Your task to perform on an android device: toggle sleep mode Image 0: 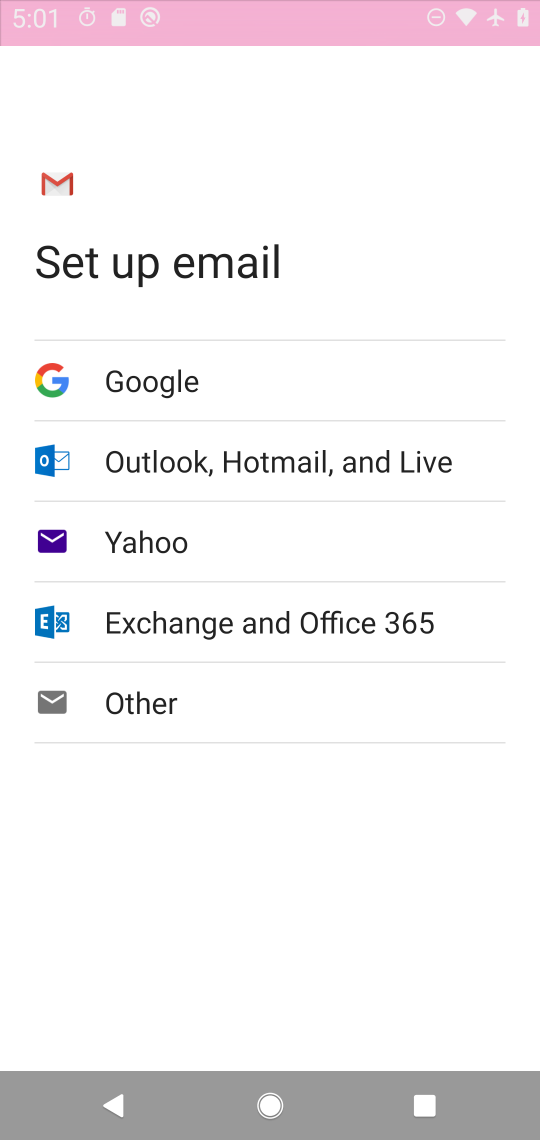
Step 0: press home button
Your task to perform on an android device: toggle sleep mode Image 1: 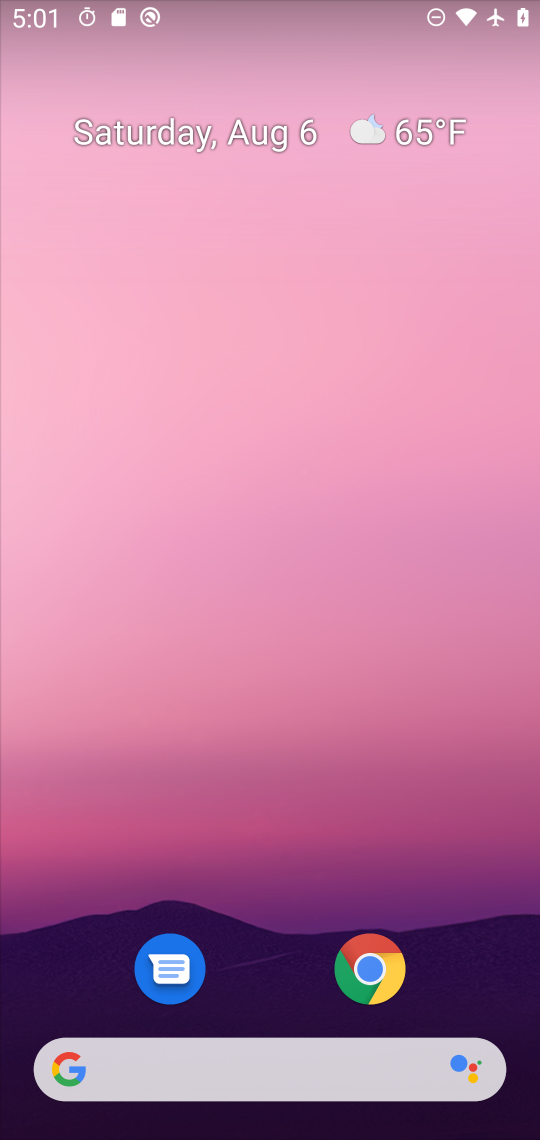
Step 1: drag from (257, 673) to (395, 23)
Your task to perform on an android device: toggle sleep mode Image 2: 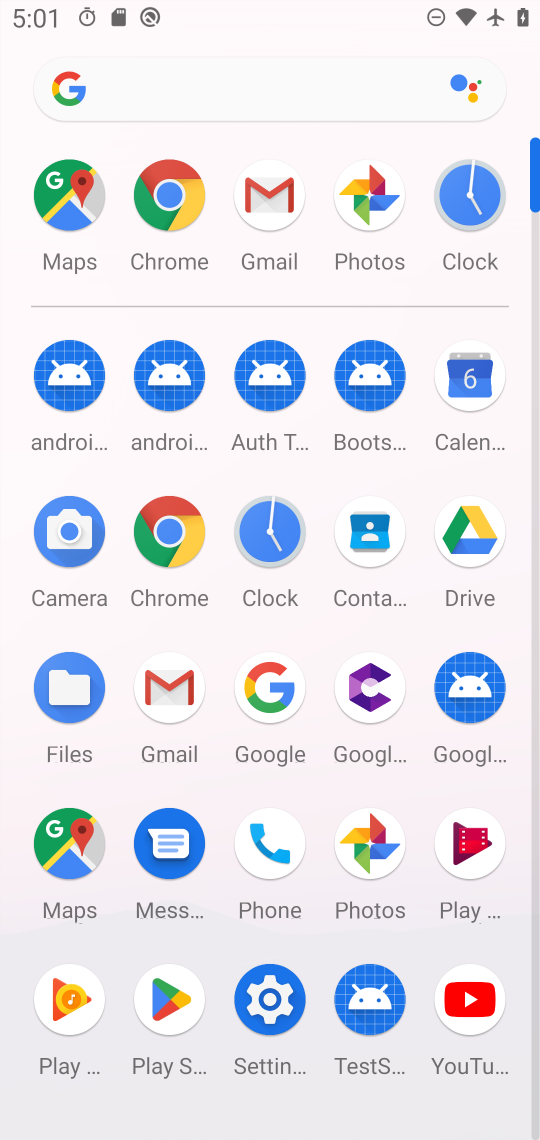
Step 2: click (270, 995)
Your task to perform on an android device: toggle sleep mode Image 3: 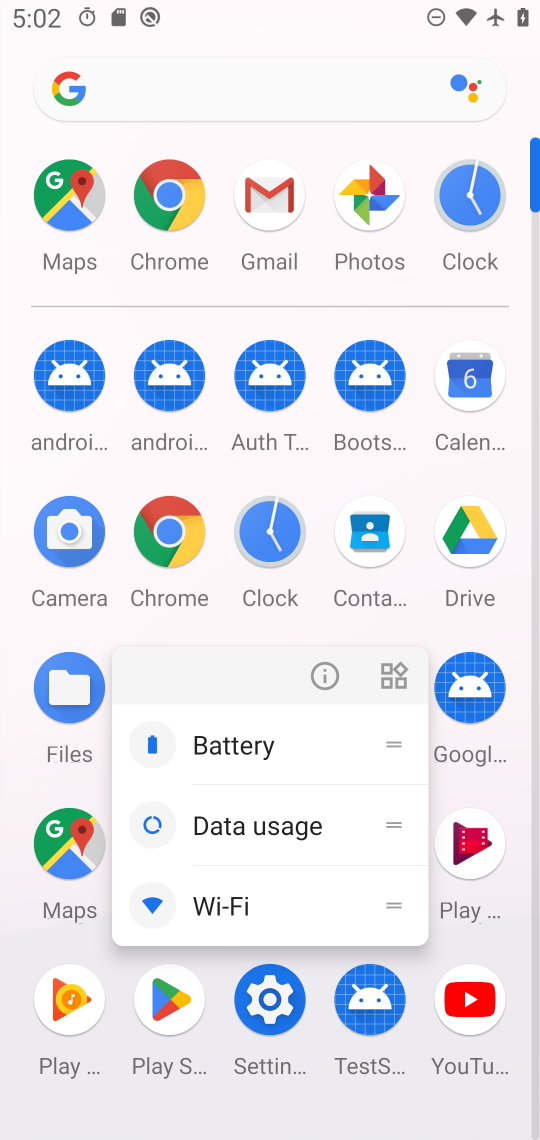
Step 3: click (263, 998)
Your task to perform on an android device: toggle sleep mode Image 4: 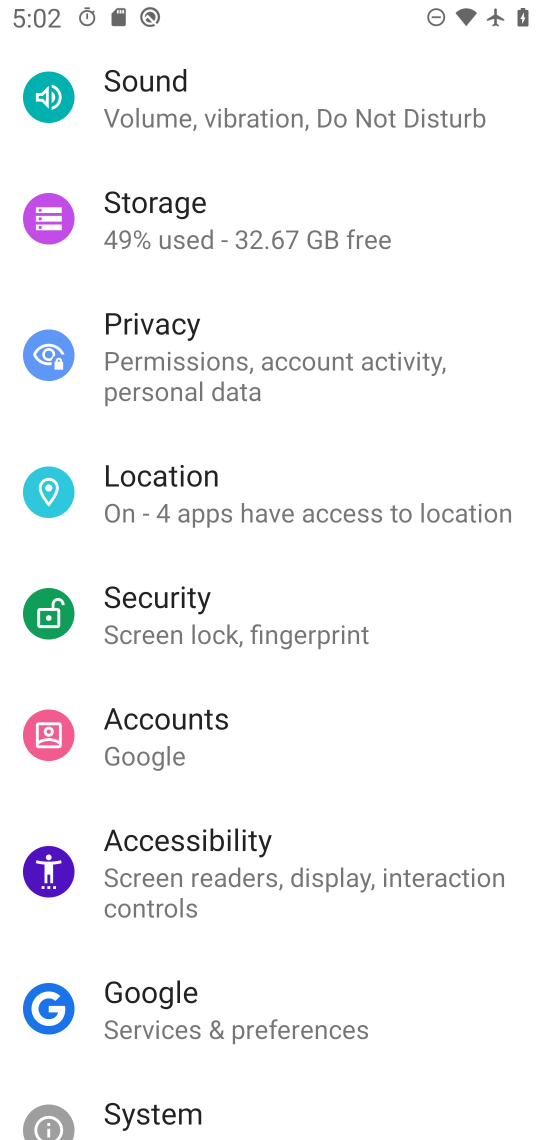
Step 4: drag from (286, 175) to (292, 946)
Your task to perform on an android device: toggle sleep mode Image 5: 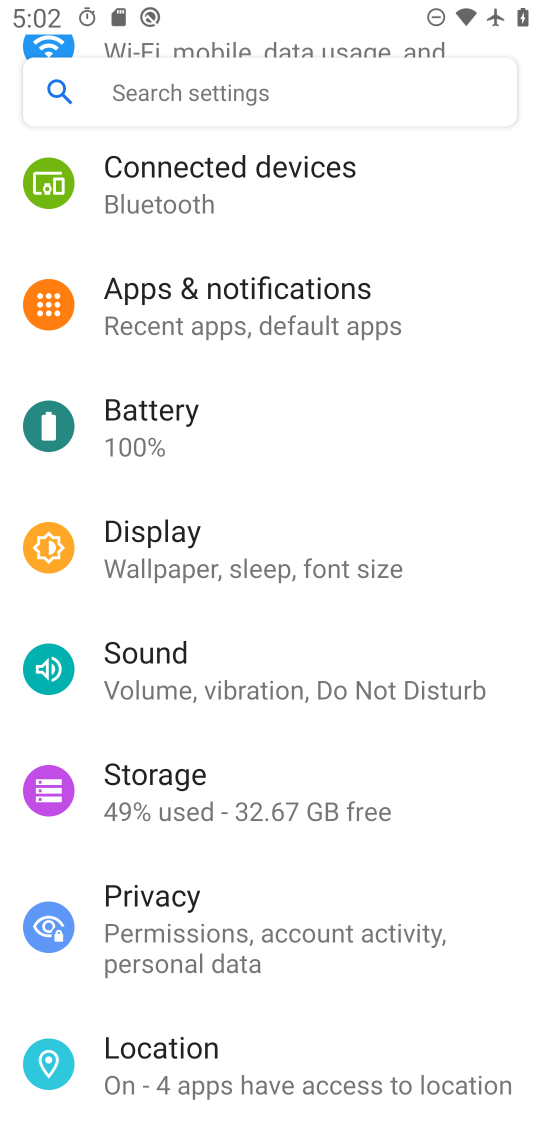
Step 5: click (157, 560)
Your task to perform on an android device: toggle sleep mode Image 6: 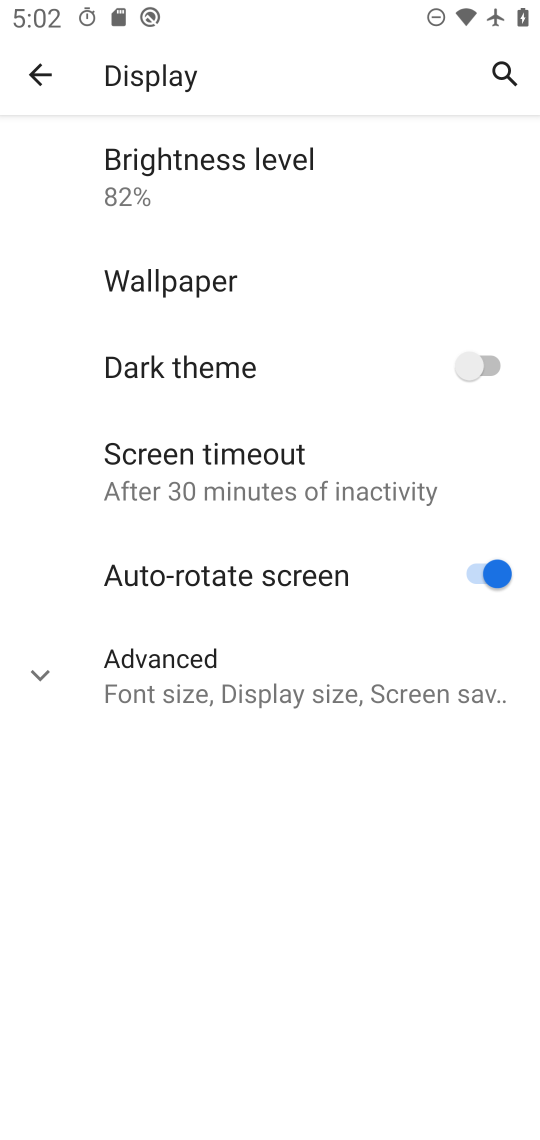
Step 6: task complete